Your task to perform on an android device: turn on wifi Image 0: 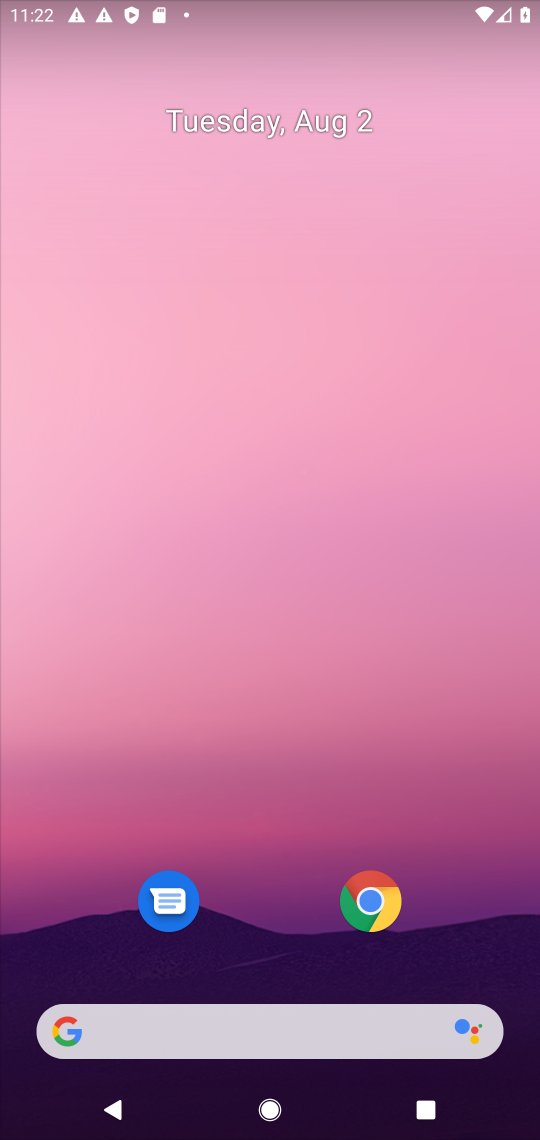
Step 0: click (473, 963)
Your task to perform on an android device: turn on wifi Image 1: 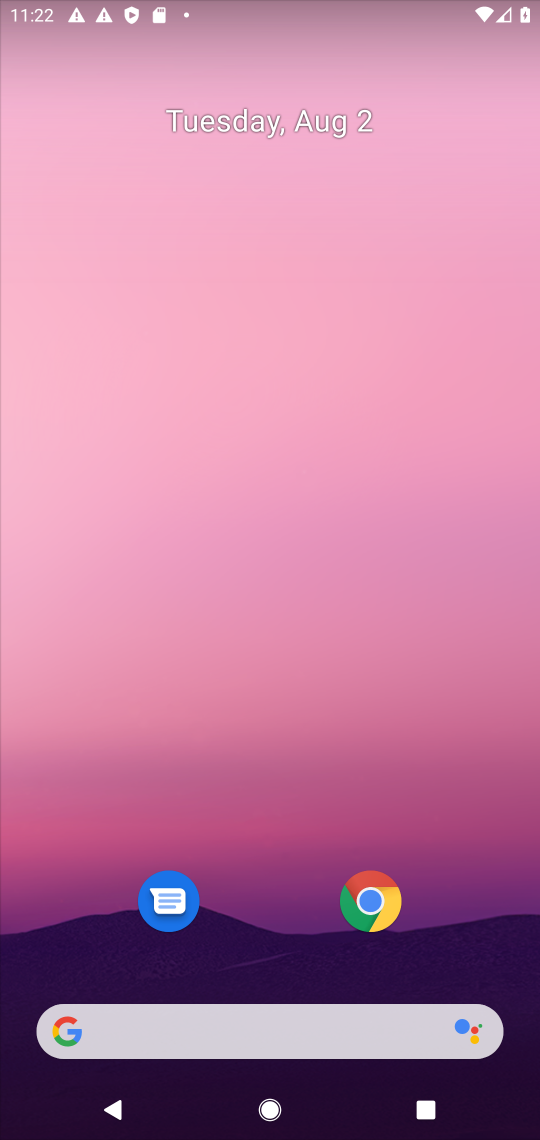
Step 1: drag from (507, 1081) to (341, 138)
Your task to perform on an android device: turn on wifi Image 2: 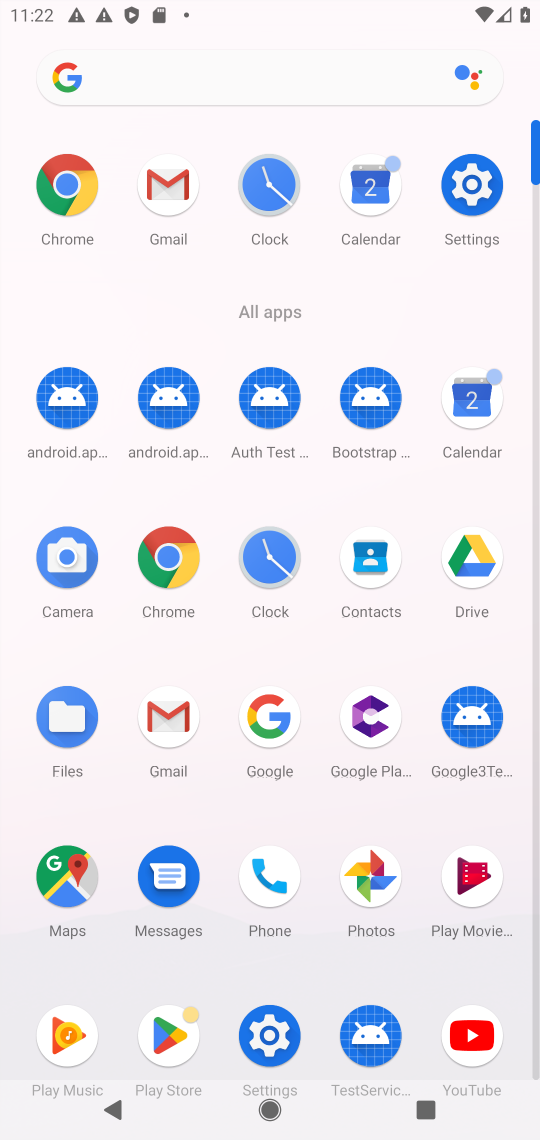
Step 2: click (472, 189)
Your task to perform on an android device: turn on wifi Image 3: 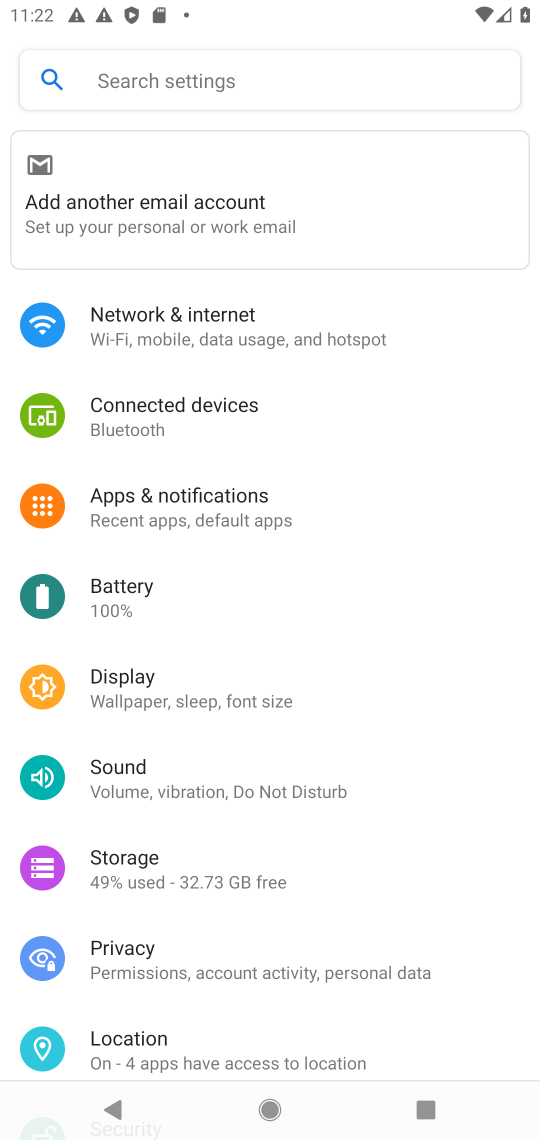
Step 3: click (188, 334)
Your task to perform on an android device: turn on wifi Image 4: 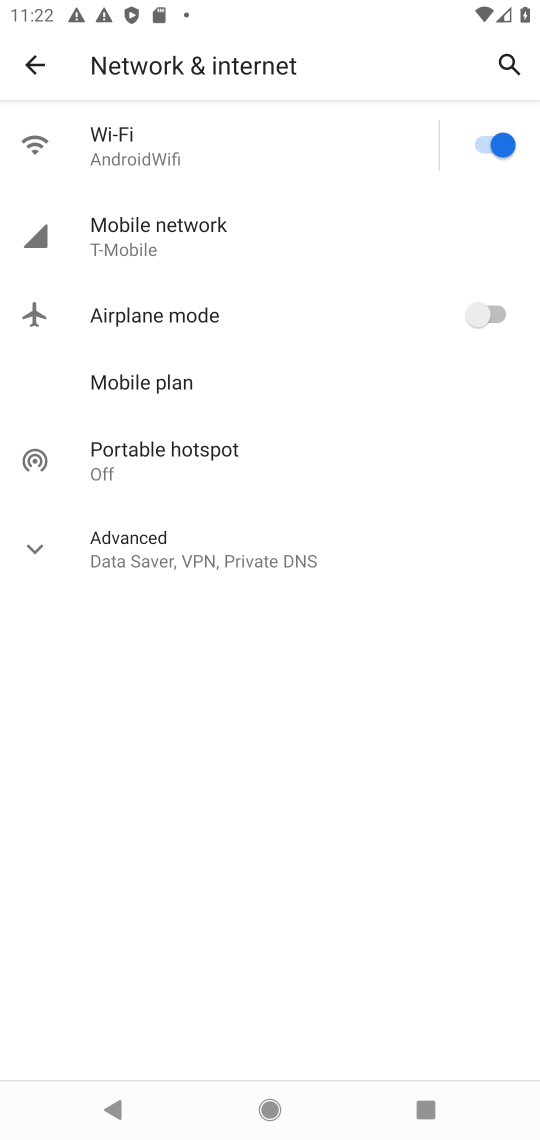
Step 4: task complete